Your task to perform on an android device: Set the phone to "Do not disturb". Image 0: 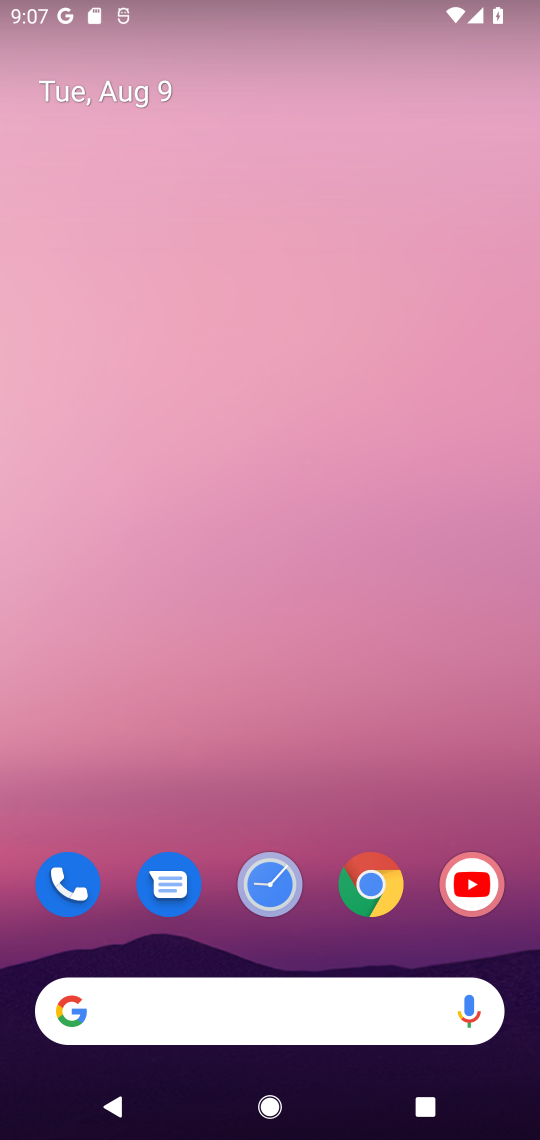
Step 0: drag from (292, 953) to (292, 889)
Your task to perform on an android device: Set the phone to "Do not disturb". Image 1: 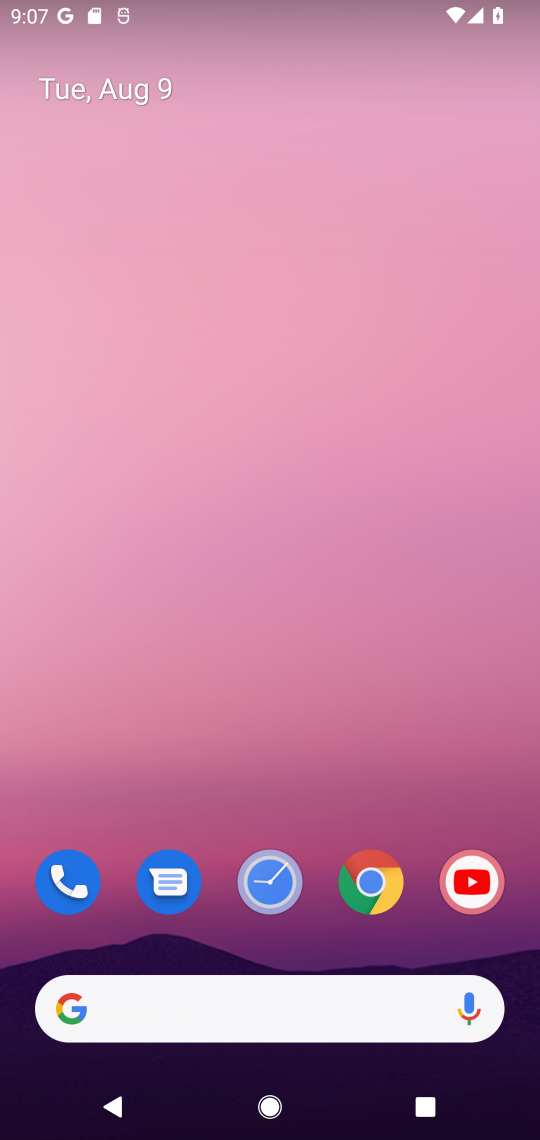
Step 1: drag from (251, 6) to (231, 570)
Your task to perform on an android device: Set the phone to "Do not disturb". Image 2: 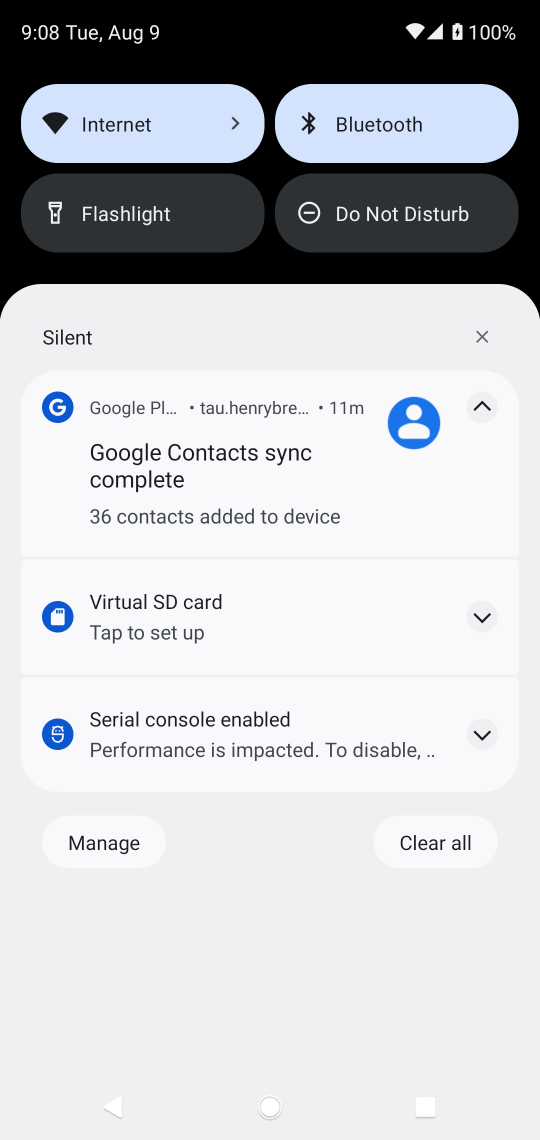
Step 2: click (380, 212)
Your task to perform on an android device: Set the phone to "Do not disturb". Image 3: 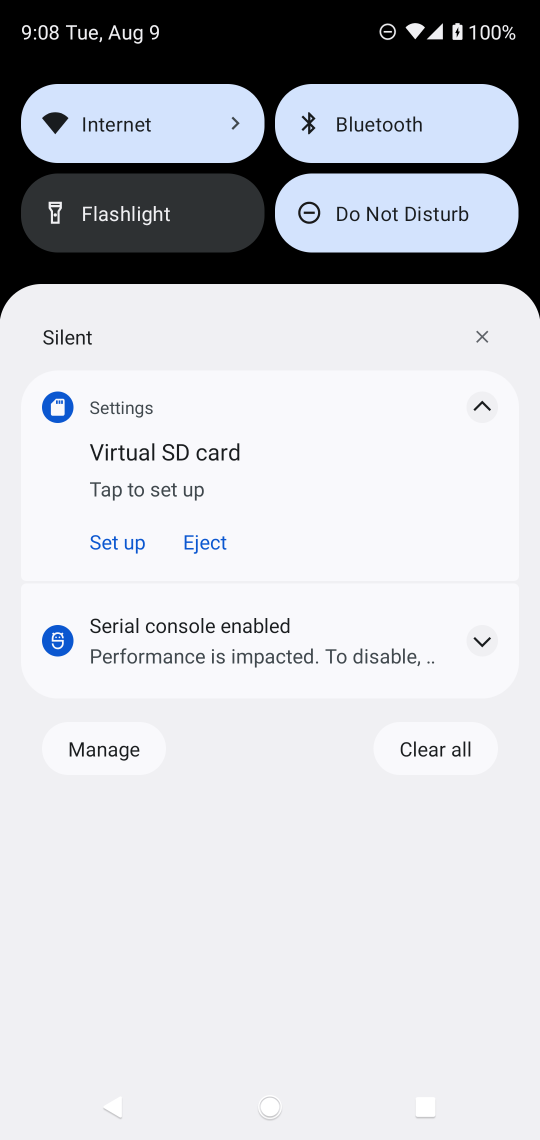
Step 3: task complete